Your task to perform on an android device: toggle priority inbox in the gmail app Image 0: 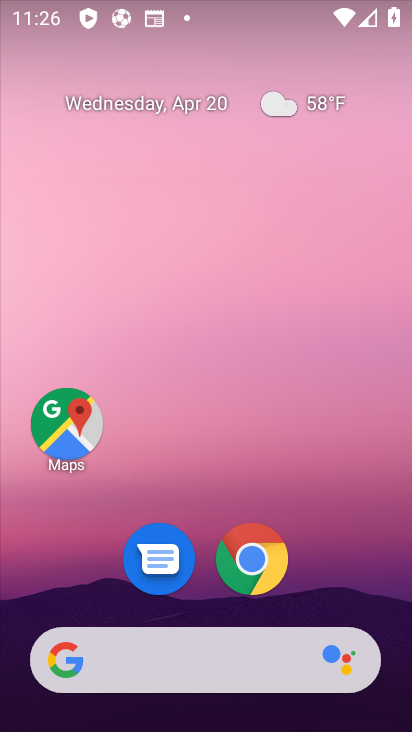
Step 0: drag from (327, 583) to (245, 0)
Your task to perform on an android device: toggle priority inbox in the gmail app Image 1: 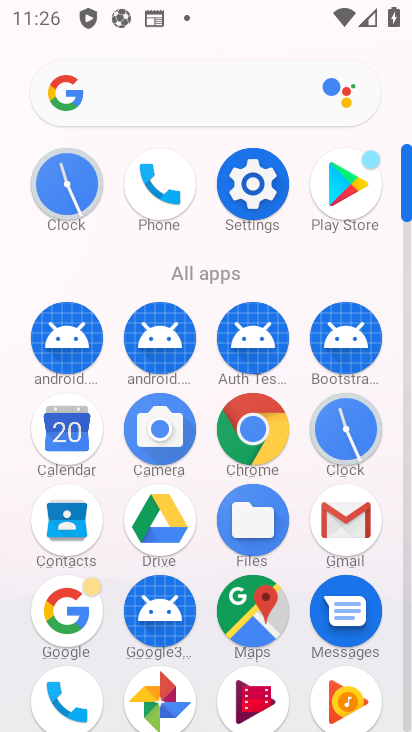
Step 1: click (342, 520)
Your task to perform on an android device: toggle priority inbox in the gmail app Image 2: 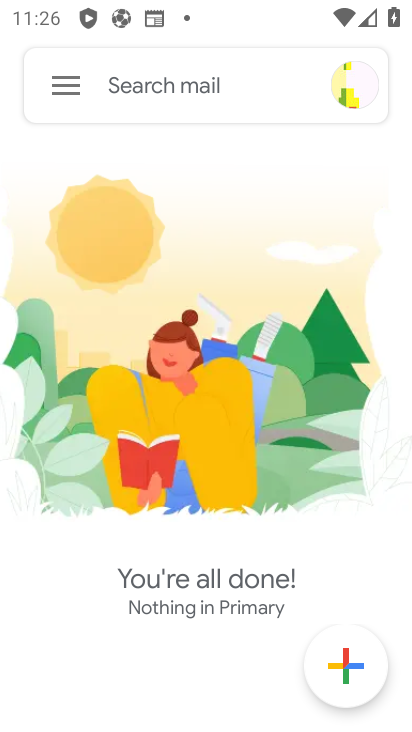
Step 2: click (59, 81)
Your task to perform on an android device: toggle priority inbox in the gmail app Image 3: 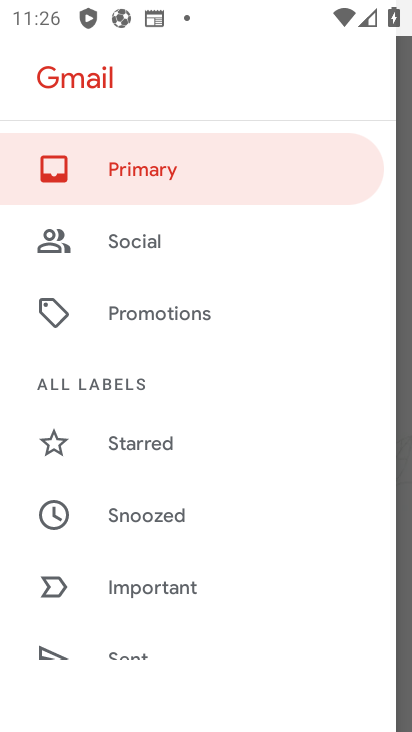
Step 3: drag from (234, 659) to (237, 101)
Your task to perform on an android device: toggle priority inbox in the gmail app Image 4: 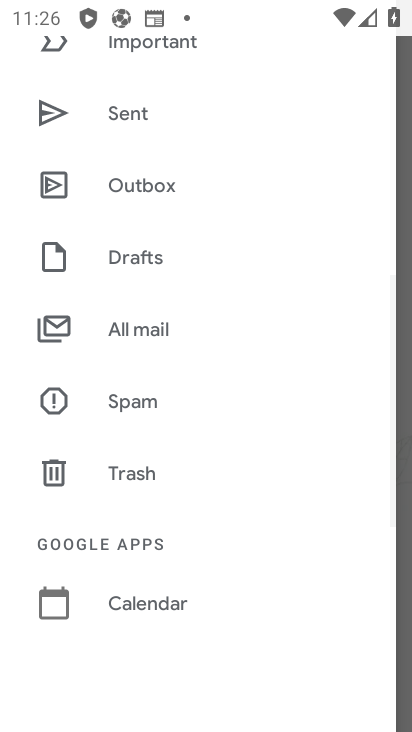
Step 4: drag from (169, 535) to (177, 223)
Your task to perform on an android device: toggle priority inbox in the gmail app Image 5: 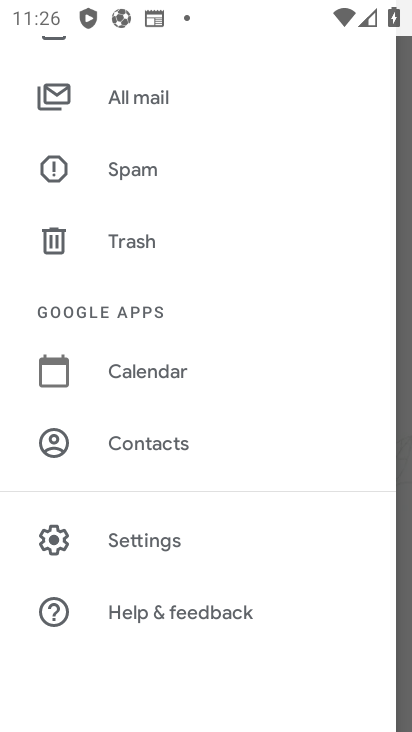
Step 5: click (166, 528)
Your task to perform on an android device: toggle priority inbox in the gmail app Image 6: 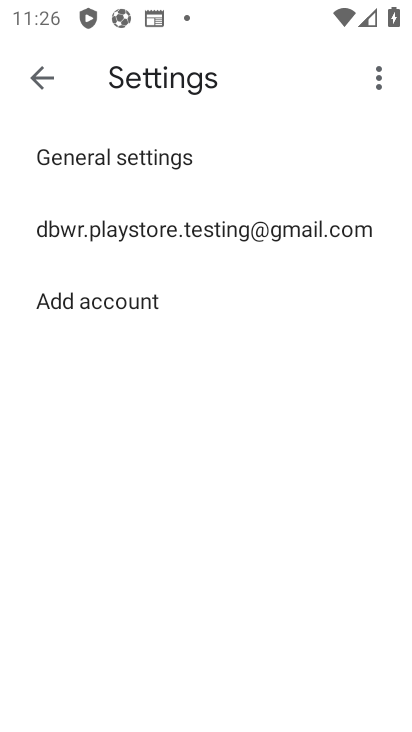
Step 6: click (225, 215)
Your task to perform on an android device: toggle priority inbox in the gmail app Image 7: 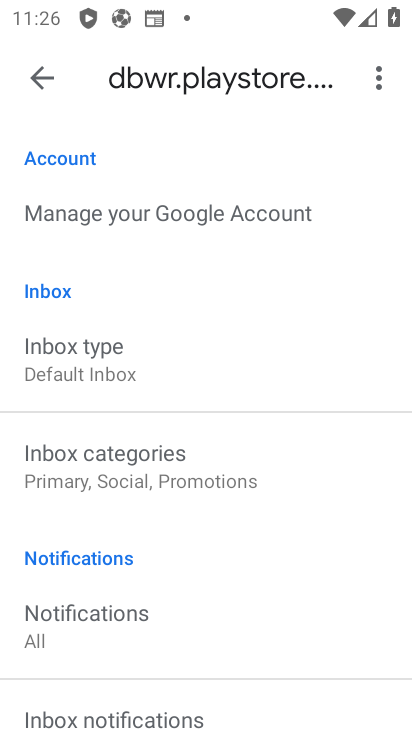
Step 7: click (132, 366)
Your task to perform on an android device: toggle priority inbox in the gmail app Image 8: 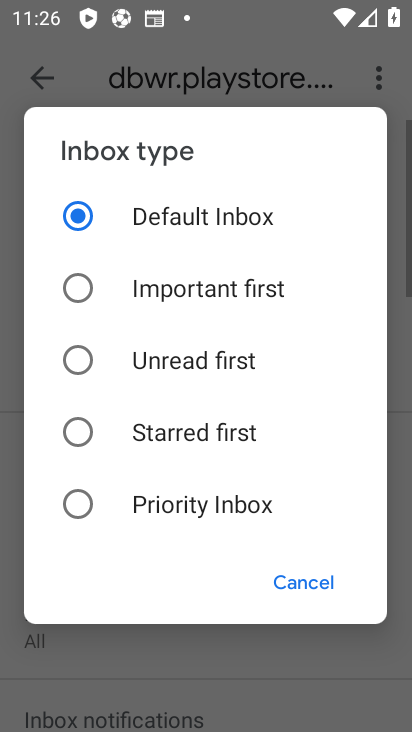
Step 8: click (183, 503)
Your task to perform on an android device: toggle priority inbox in the gmail app Image 9: 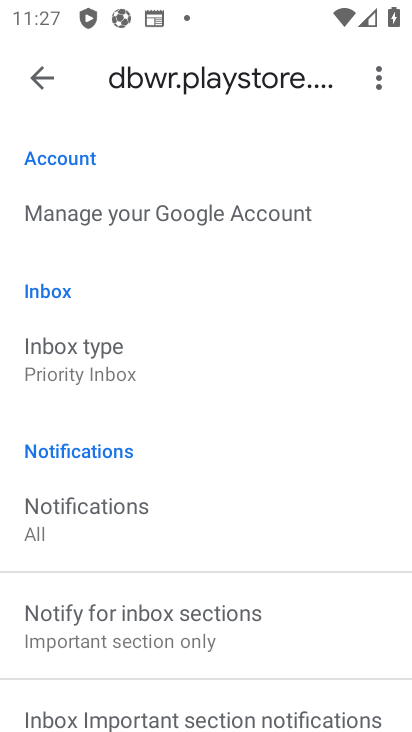
Step 9: task complete